Your task to perform on an android device: manage bookmarks in the chrome app Image 0: 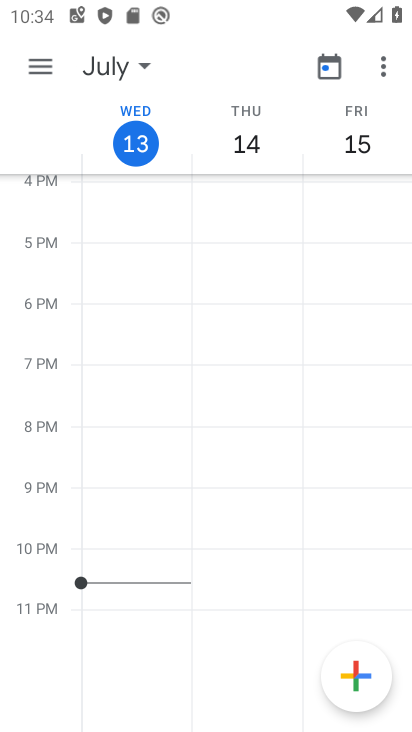
Step 0: press home button
Your task to perform on an android device: manage bookmarks in the chrome app Image 1: 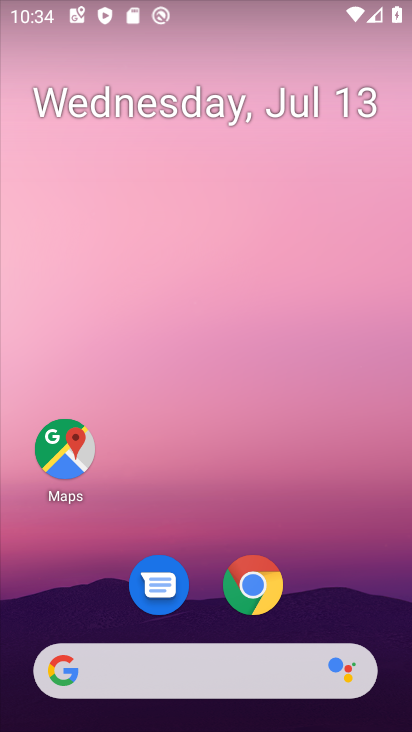
Step 1: click (264, 581)
Your task to perform on an android device: manage bookmarks in the chrome app Image 2: 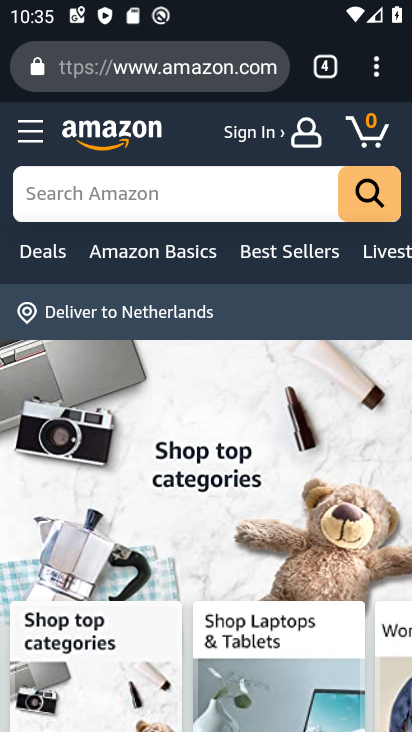
Step 2: click (377, 65)
Your task to perform on an android device: manage bookmarks in the chrome app Image 3: 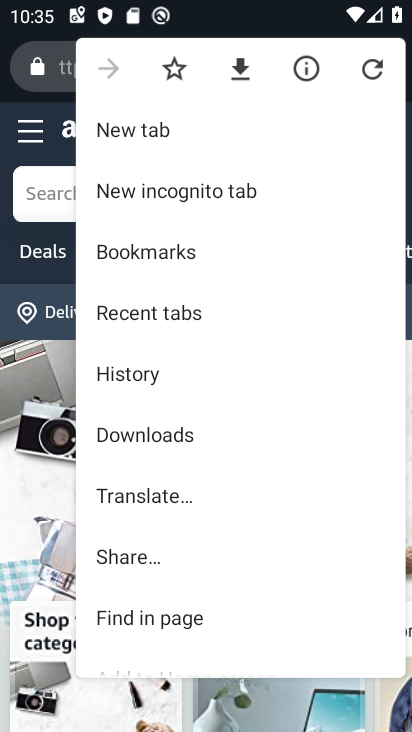
Step 3: click (179, 253)
Your task to perform on an android device: manage bookmarks in the chrome app Image 4: 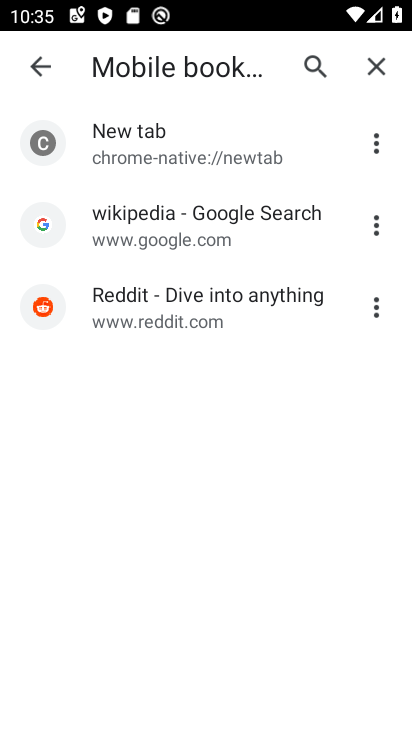
Step 4: click (376, 311)
Your task to perform on an android device: manage bookmarks in the chrome app Image 5: 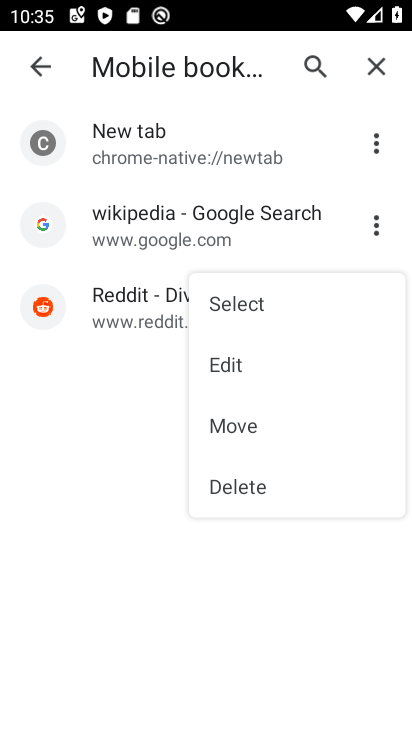
Step 5: click (281, 361)
Your task to perform on an android device: manage bookmarks in the chrome app Image 6: 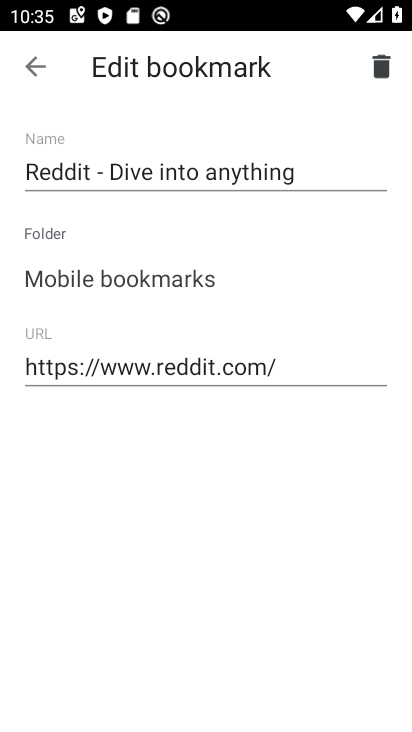
Step 6: task complete